Your task to perform on an android device: Is it going to rain this weekend? Image 0: 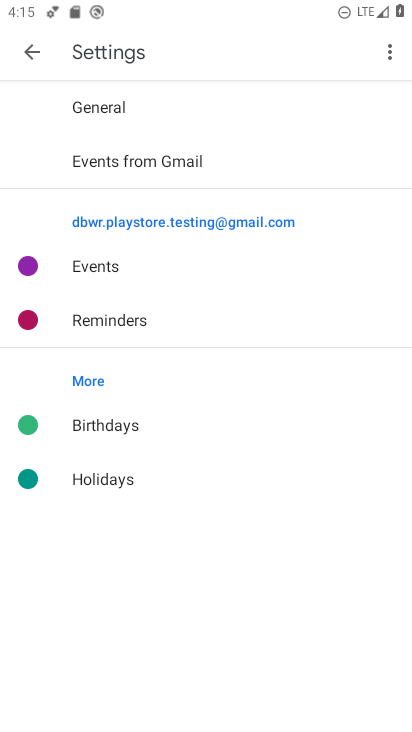
Step 0: press home button
Your task to perform on an android device: Is it going to rain this weekend? Image 1: 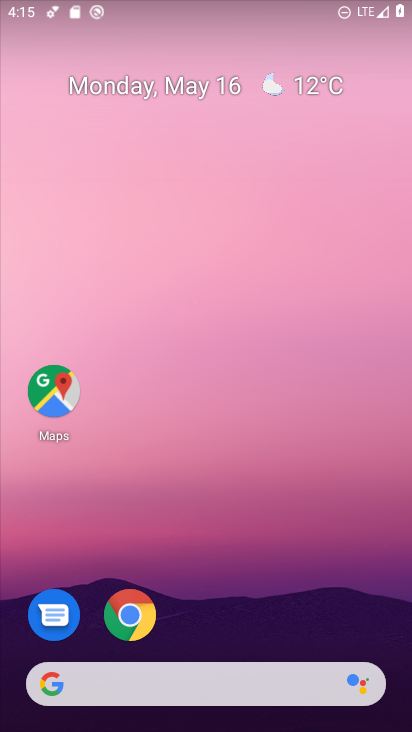
Step 1: click (270, 84)
Your task to perform on an android device: Is it going to rain this weekend? Image 2: 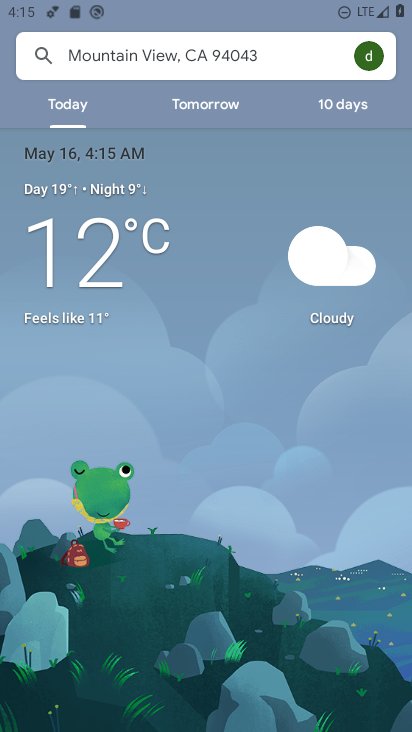
Step 2: click (342, 101)
Your task to perform on an android device: Is it going to rain this weekend? Image 3: 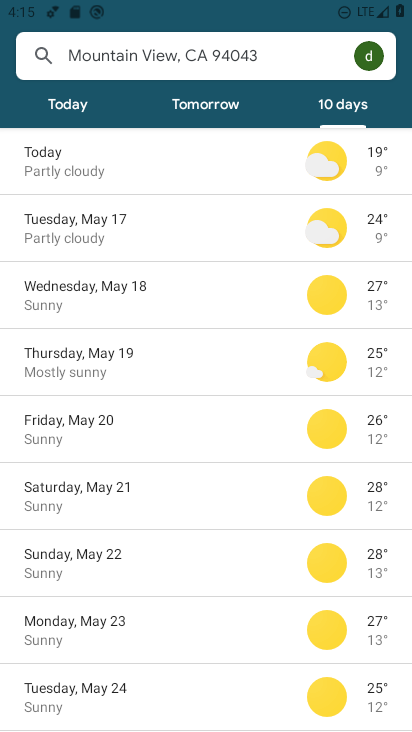
Step 3: click (81, 488)
Your task to perform on an android device: Is it going to rain this weekend? Image 4: 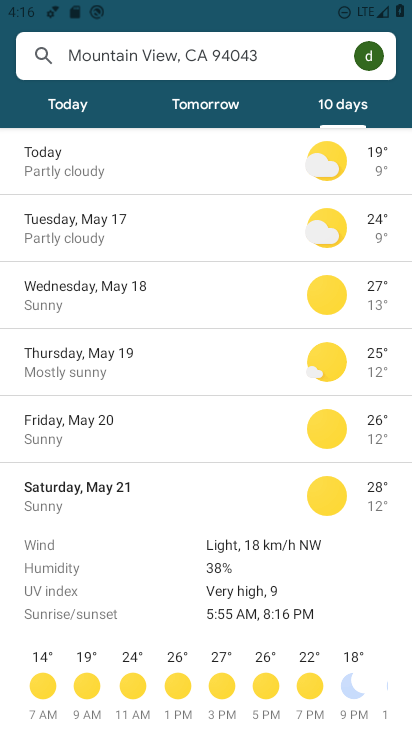
Step 4: task complete